Your task to perform on an android device: Go to accessibility settings Image 0: 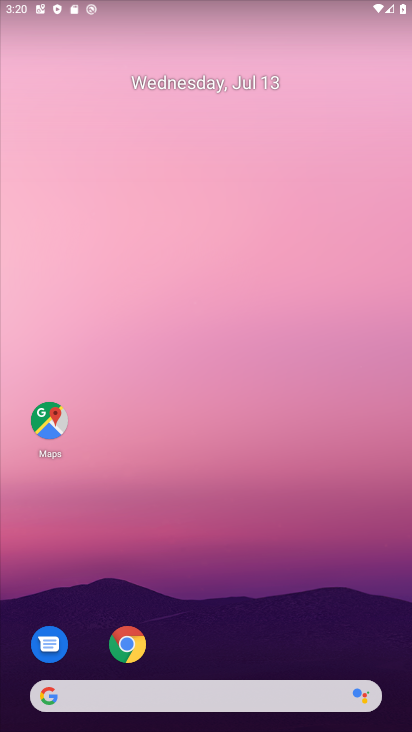
Step 0: drag from (189, 659) to (261, 149)
Your task to perform on an android device: Go to accessibility settings Image 1: 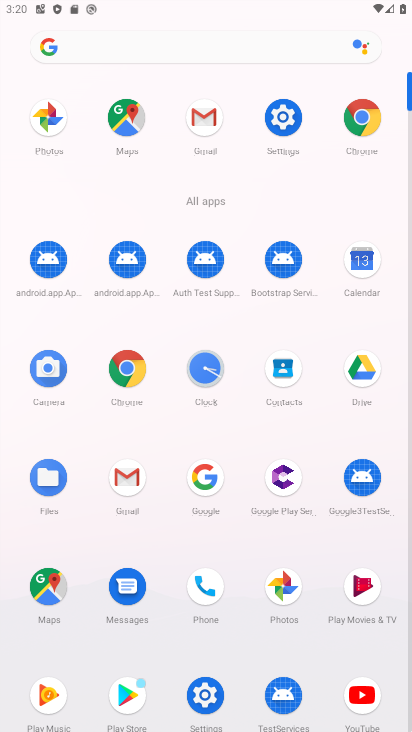
Step 1: click (212, 696)
Your task to perform on an android device: Go to accessibility settings Image 2: 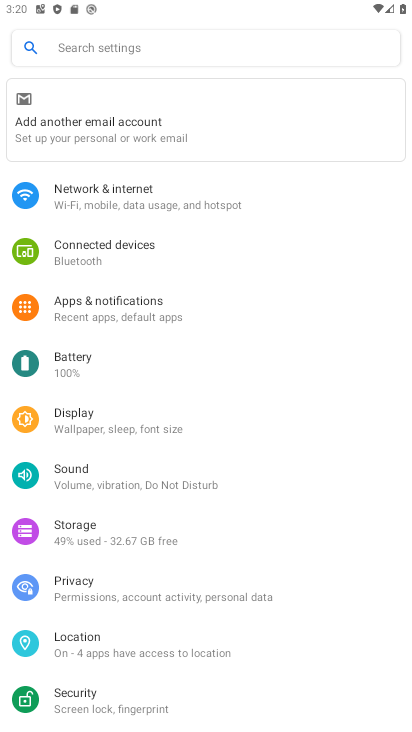
Step 2: drag from (145, 628) to (248, 261)
Your task to perform on an android device: Go to accessibility settings Image 3: 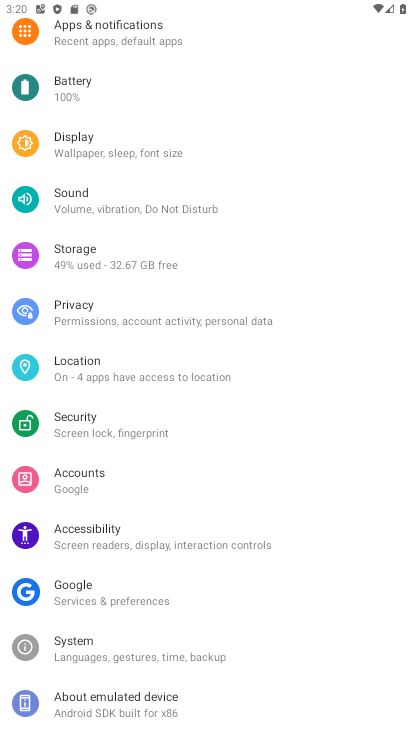
Step 3: click (107, 541)
Your task to perform on an android device: Go to accessibility settings Image 4: 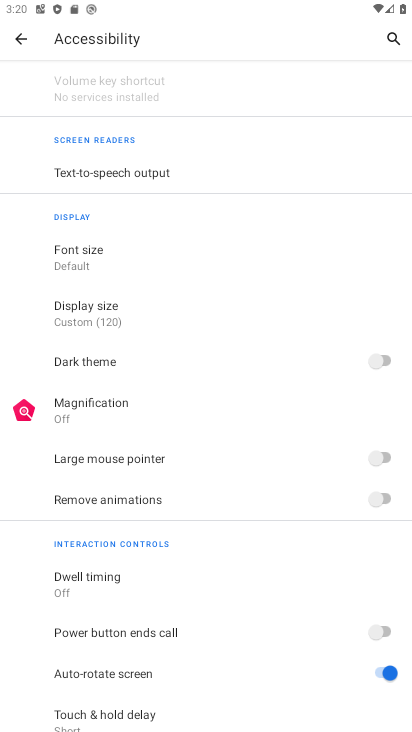
Step 4: task complete